Your task to perform on an android device: Go to wifi settings Image 0: 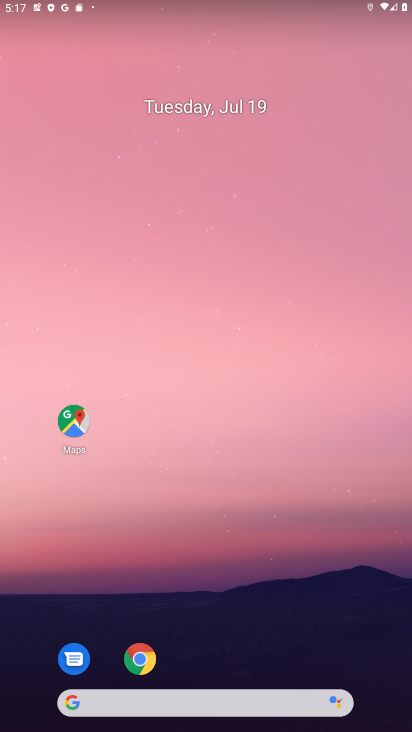
Step 0: click (363, 120)
Your task to perform on an android device: Go to wifi settings Image 1: 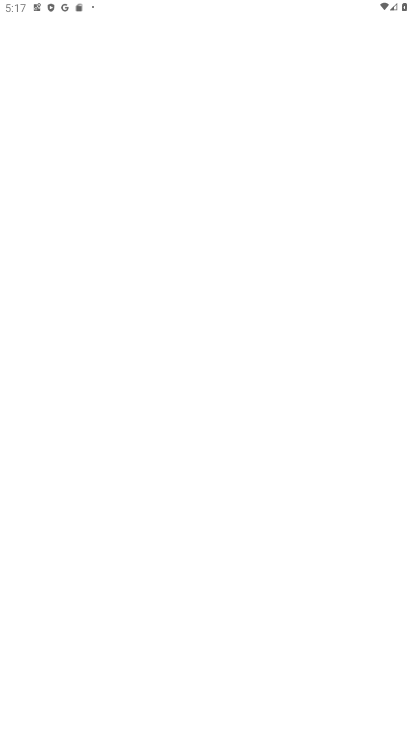
Step 1: task complete